Your task to perform on an android device: Go to accessibility settings Image 0: 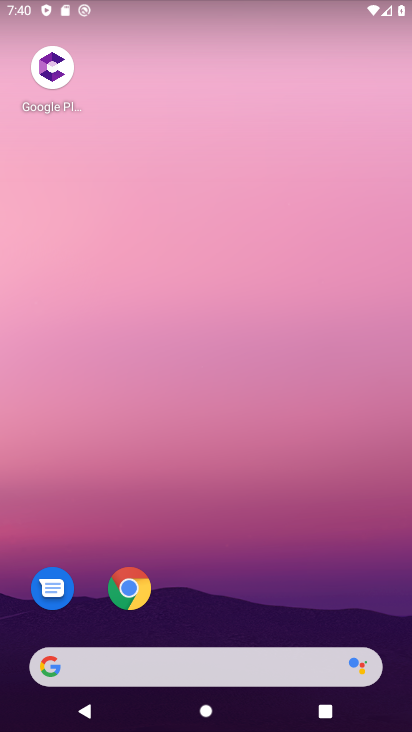
Step 0: drag from (289, 553) to (299, 147)
Your task to perform on an android device: Go to accessibility settings Image 1: 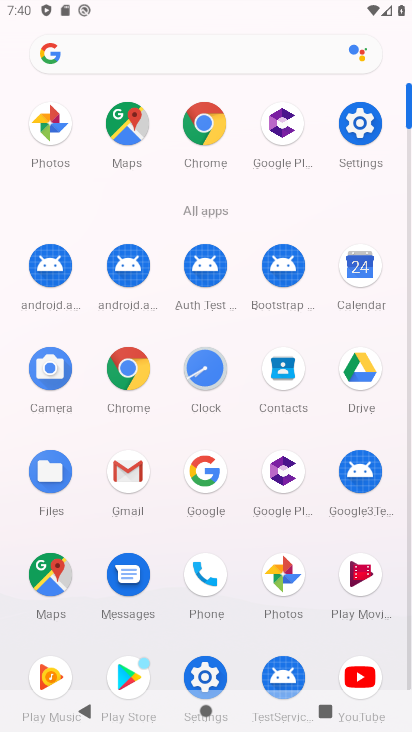
Step 1: click (356, 118)
Your task to perform on an android device: Go to accessibility settings Image 2: 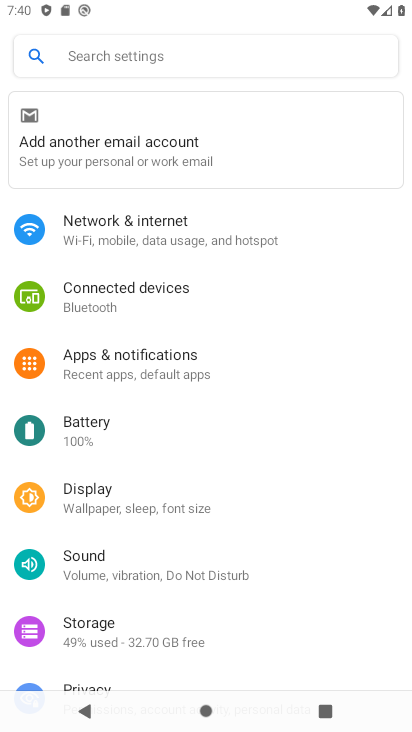
Step 2: drag from (173, 589) to (279, 211)
Your task to perform on an android device: Go to accessibility settings Image 3: 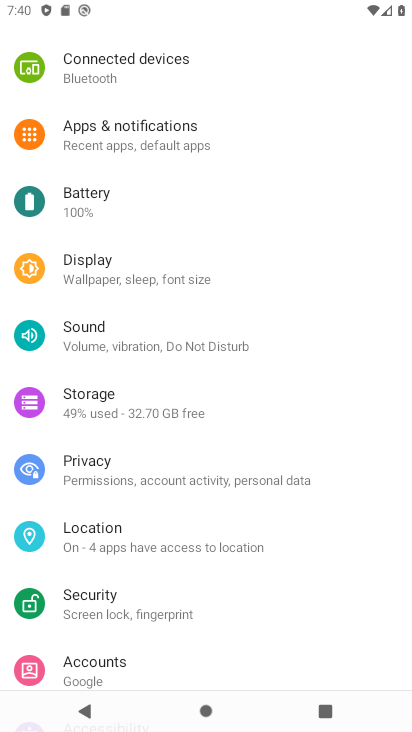
Step 3: drag from (223, 467) to (292, 28)
Your task to perform on an android device: Go to accessibility settings Image 4: 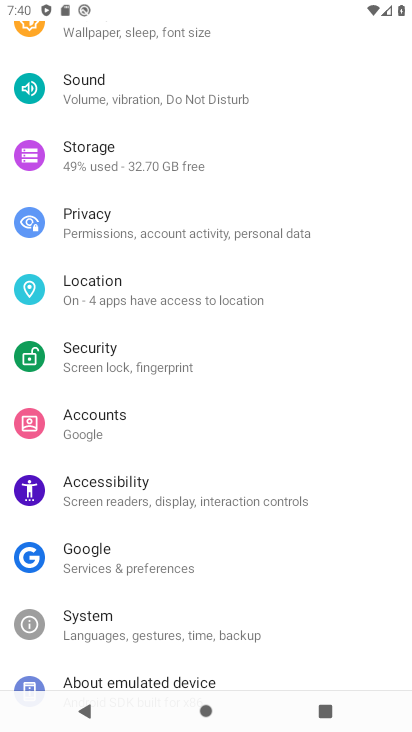
Step 4: click (124, 492)
Your task to perform on an android device: Go to accessibility settings Image 5: 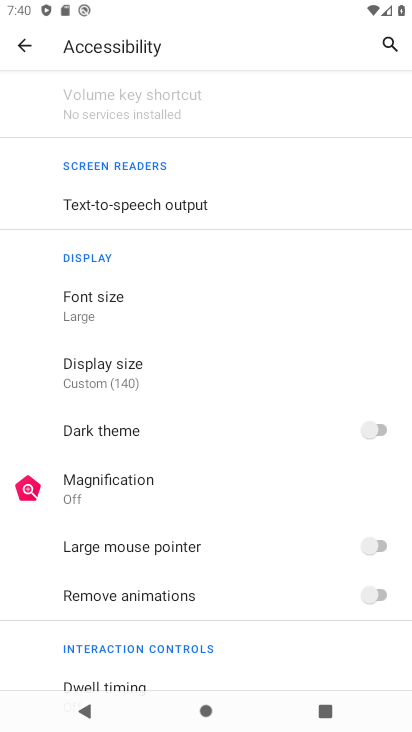
Step 5: task complete